Your task to perform on an android device: turn off notifications in google photos Image 0: 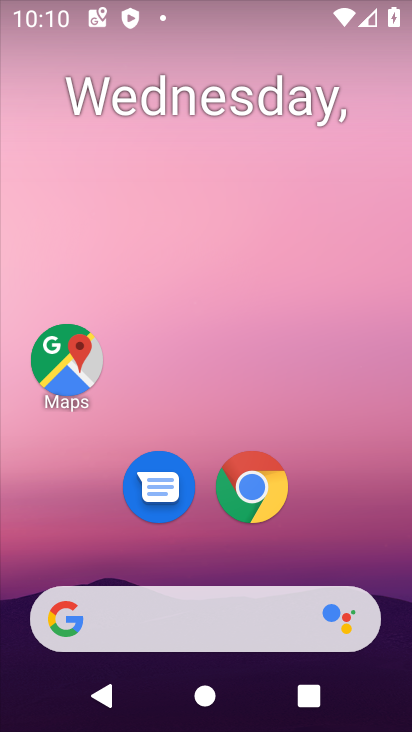
Step 0: drag from (235, 558) to (6, 7)
Your task to perform on an android device: turn off notifications in google photos Image 1: 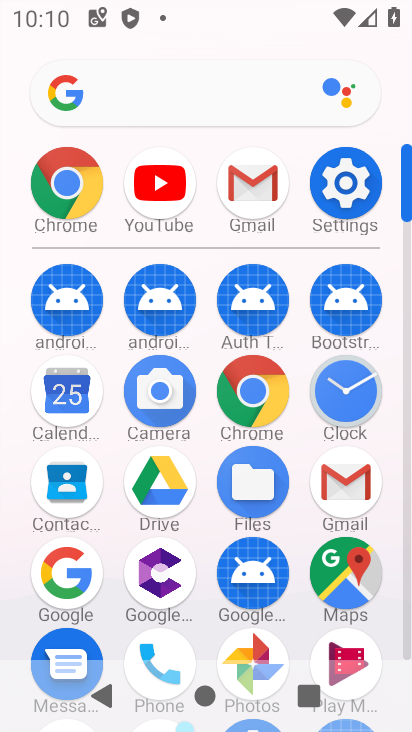
Step 1: click (247, 639)
Your task to perform on an android device: turn off notifications in google photos Image 2: 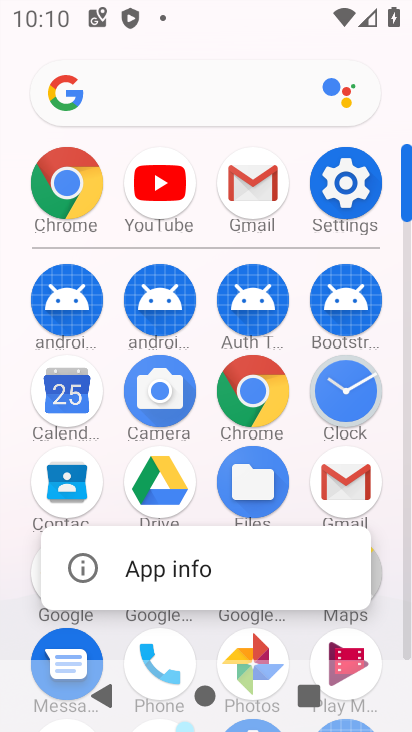
Step 2: click (202, 557)
Your task to perform on an android device: turn off notifications in google photos Image 3: 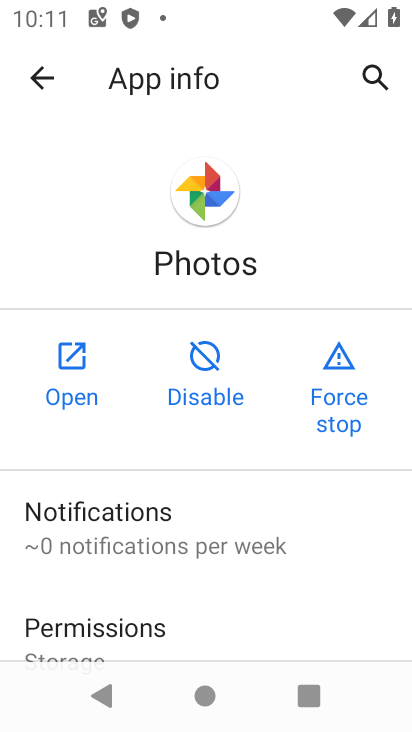
Step 3: click (247, 532)
Your task to perform on an android device: turn off notifications in google photos Image 4: 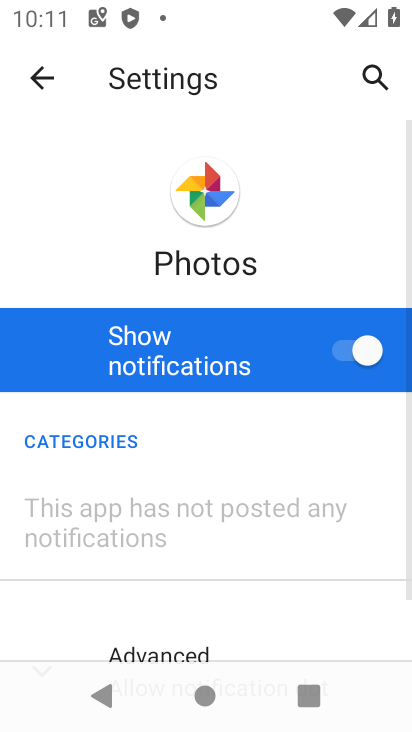
Step 4: click (370, 344)
Your task to perform on an android device: turn off notifications in google photos Image 5: 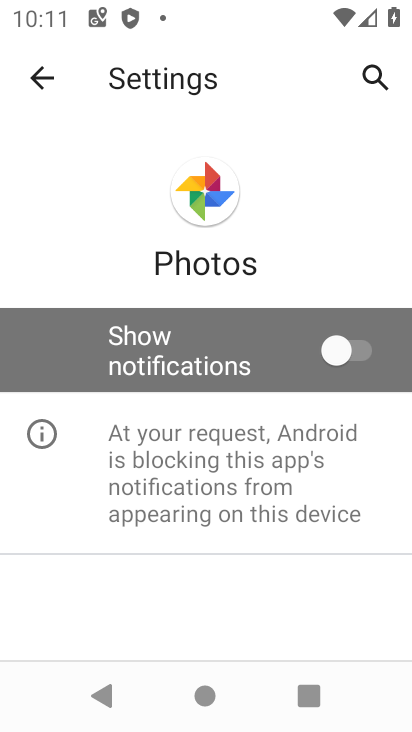
Step 5: task complete